Your task to perform on an android device: Go to notification settings Image 0: 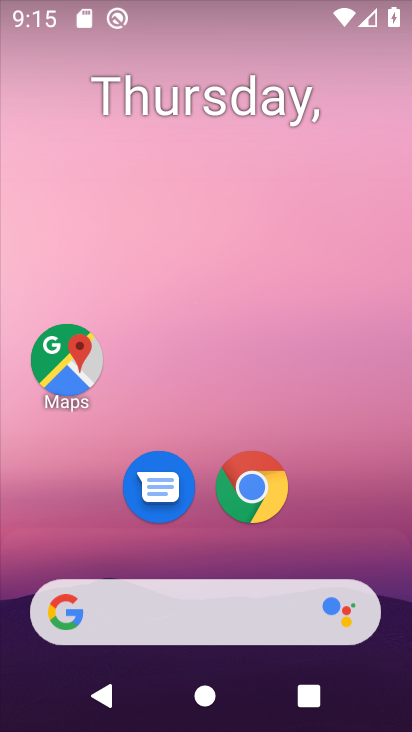
Step 0: drag from (334, 543) to (247, 128)
Your task to perform on an android device: Go to notification settings Image 1: 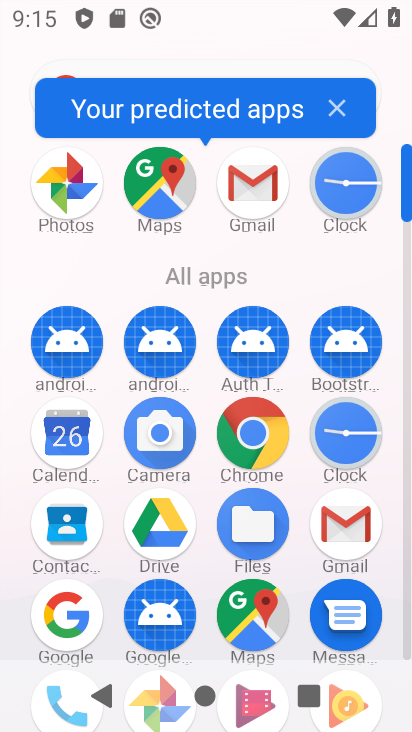
Step 1: drag from (408, 213) to (387, 158)
Your task to perform on an android device: Go to notification settings Image 2: 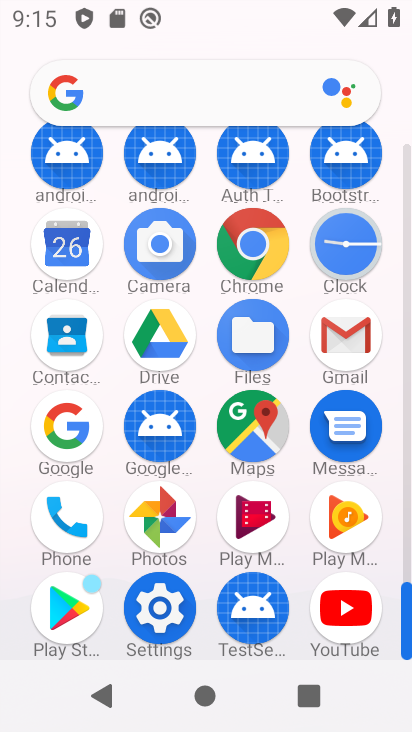
Step 2: click (164, 612)
Your task to perform on an android device: Go to notification settings Image 3: 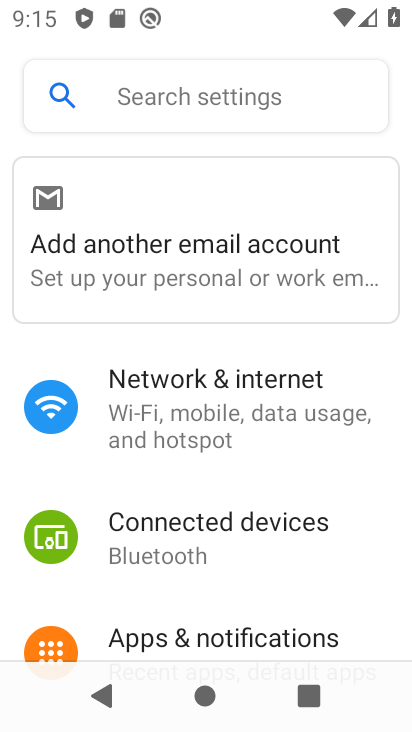
Step 3: click (160, 638)
Your task to perform on an android device: Go to notification settings Image 4: 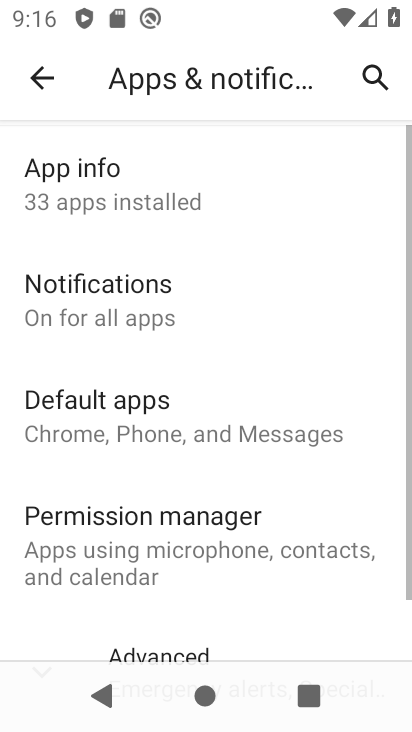
Step 4: click (176, 270)
Your task to perform on an android device: Go to notification settings Image 5: 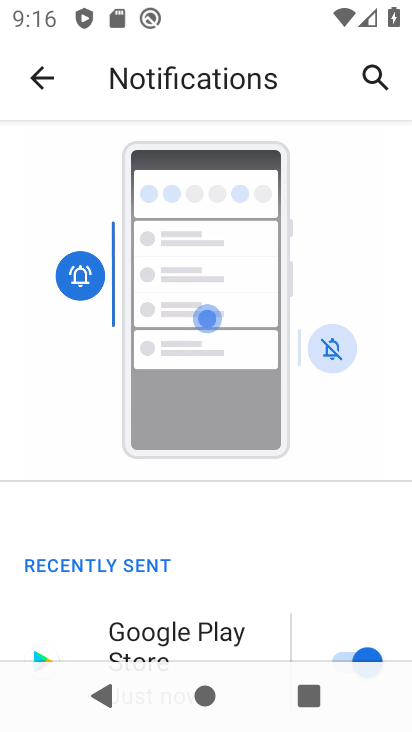
Step 5: drag from (210, 559) to (194, 137)
Your task to perform on an android device: Go to notification settings Image 6: 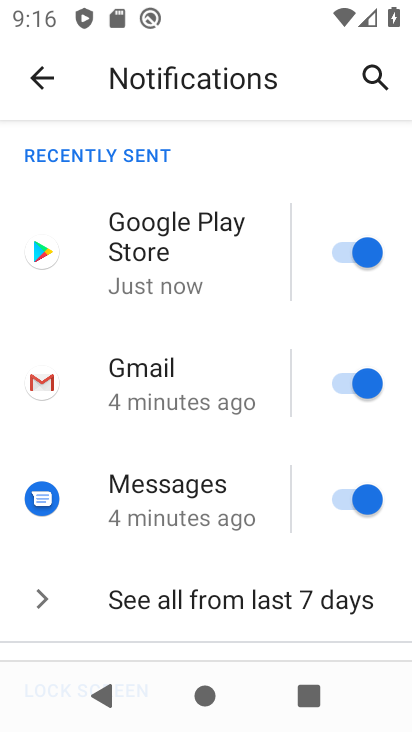
Step 6: drag from (162, 634) to (201, 245)
Your task to perform on an android device: Go to notification settings Image 7: 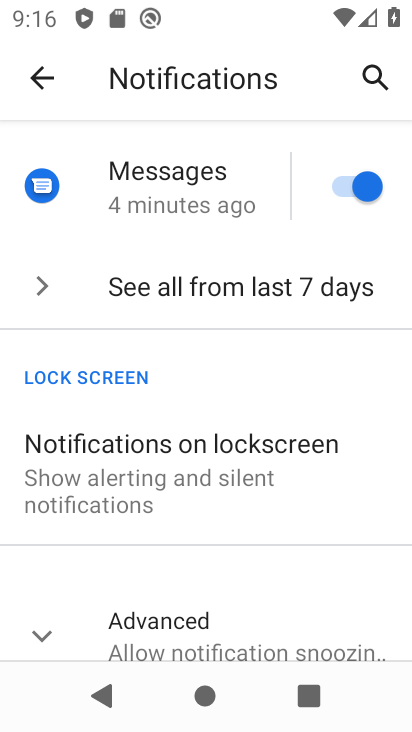
Step 7: click (167, 638)
Your task to perform on an android device: Go to notification settings Image 8: 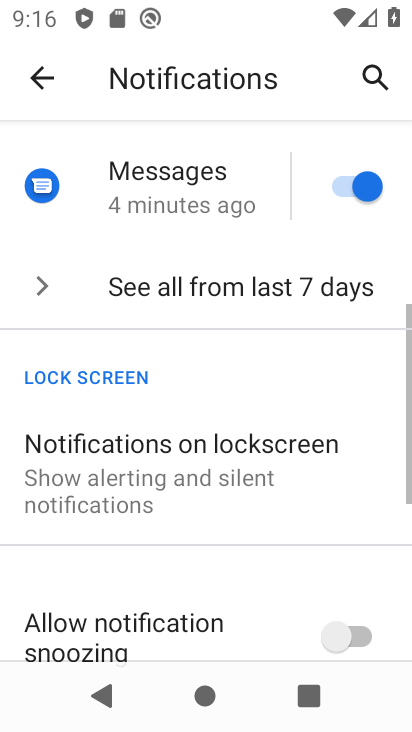
Step 8: task complete